Your task to perform on an android device: delete browsing data in the chrome app Image 0: 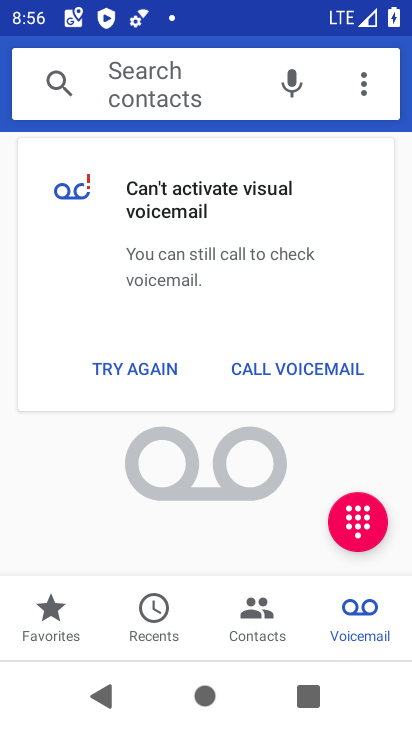
Step 0: press back button
Your task to perform on an android device: delete browsing data in the chrome app Image 1: 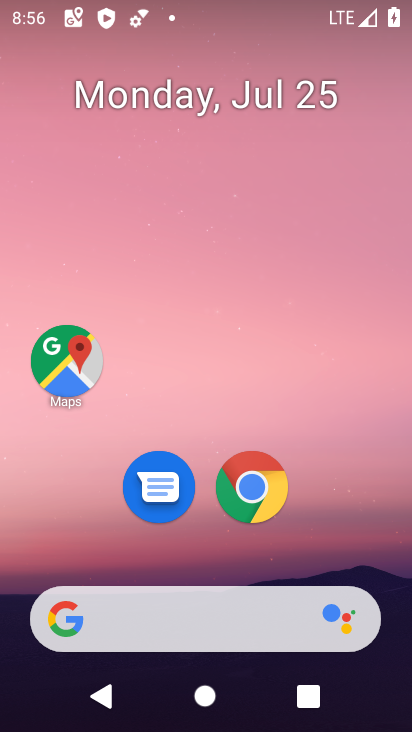
Step 1: click (265, 477)
Your task to perform on an android device: delete browsing data in the chrome app Image 2: 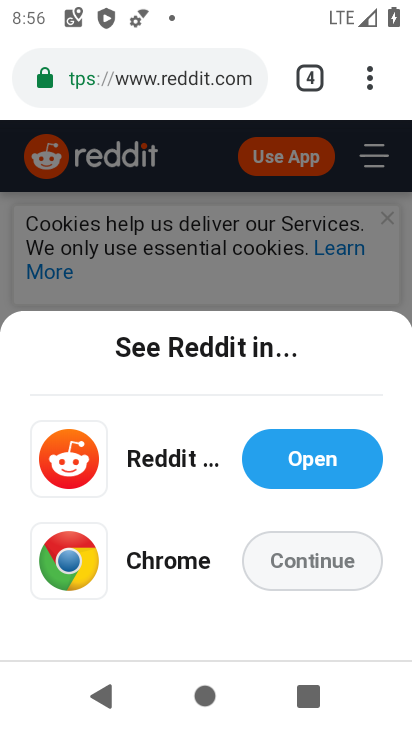
Step 2: drag from (372, 70) to (88, 439)
Your task to perform on an android device: delete browsing data in the chrome app Image 3: 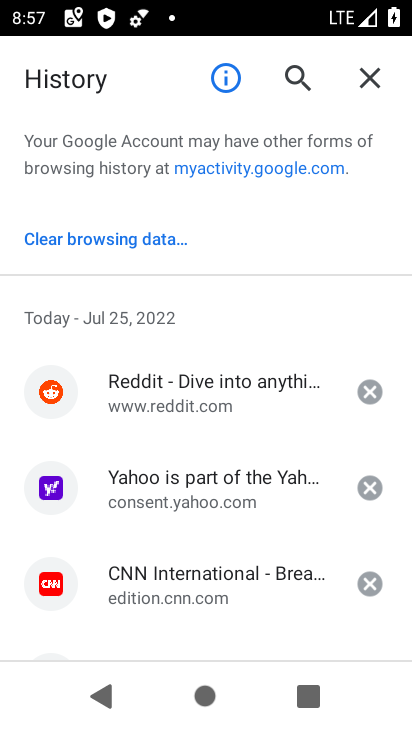
Step 3: click (115, 241)
Your task to perform on an android device: delete browsing data in the chrome app Image 4: 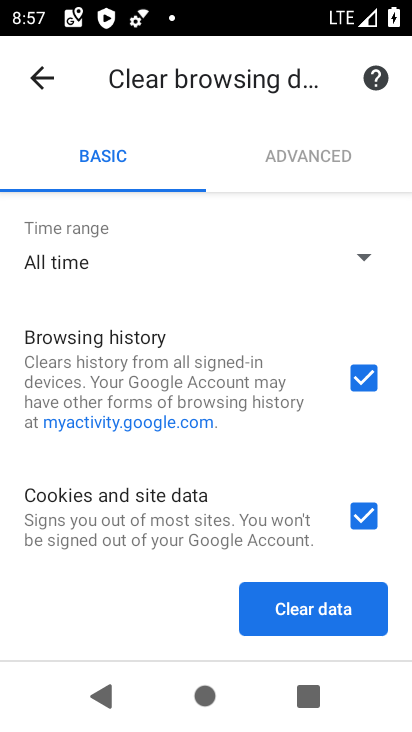
Step 4: click (330, 621)
Your task to perform on an android device: delete browsing data in the chrome app Image 5: 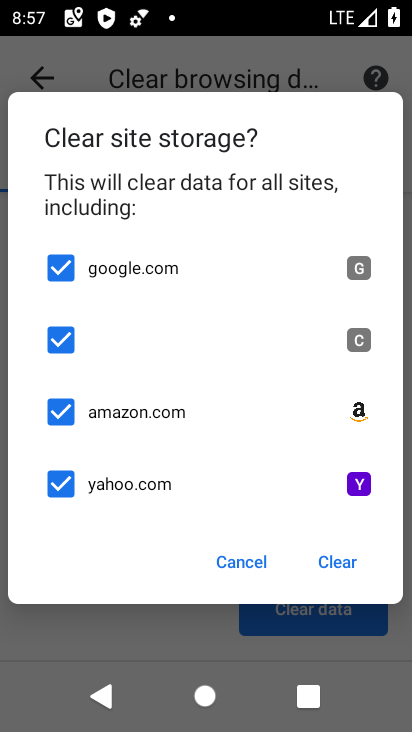
Step 5: click (347, 559)
Your task to perform on an android device: delete browsing data in the chrome app Image 6: 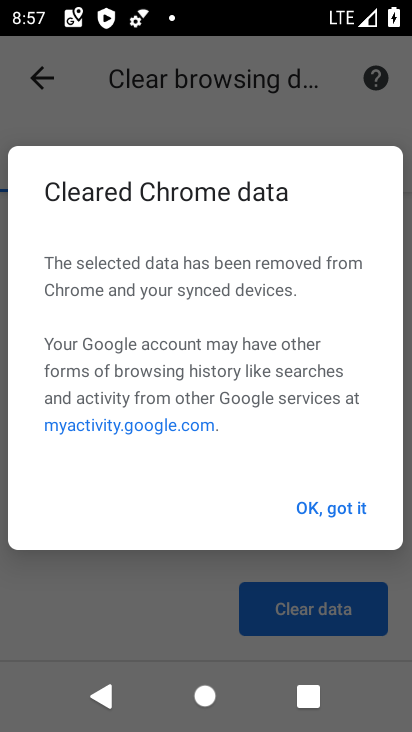
Step 6: click (343, 516)
Your task to perform on an android device: delete browsing data in the chrome app Image 7: 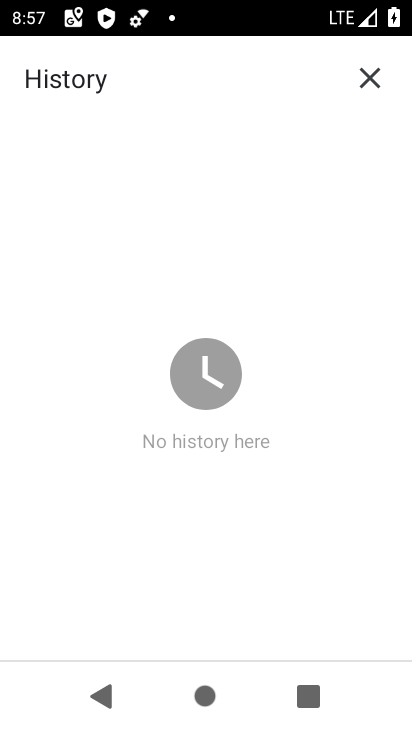
Step 7: task complete